Your task to perform on an android device: Do I have any events tomorrow? Image 0: 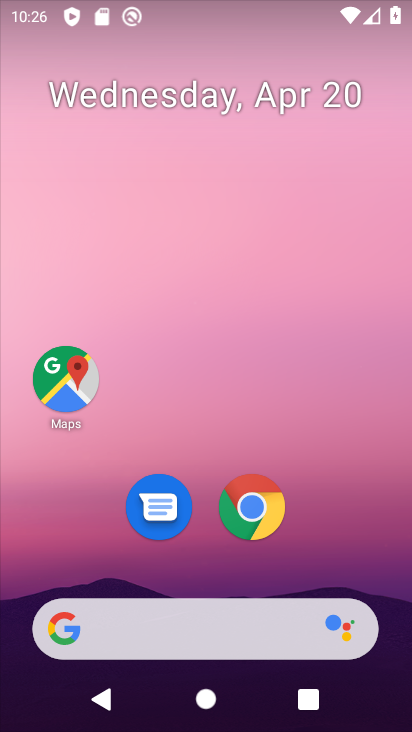
Step 0: drag from (333, 560) to (265, 173)
Your task to perform on an android device: Do I have any events tomorrow? Image 1: 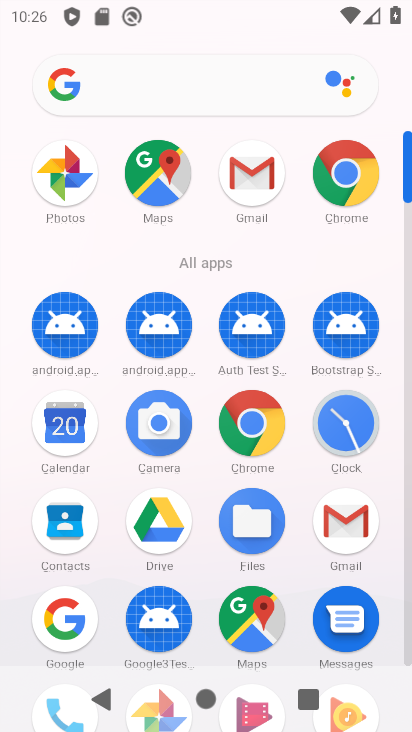
Step 1: click (69, 457)
Your task to perform on an android device: Do I have any events tomorrow? Image 2: 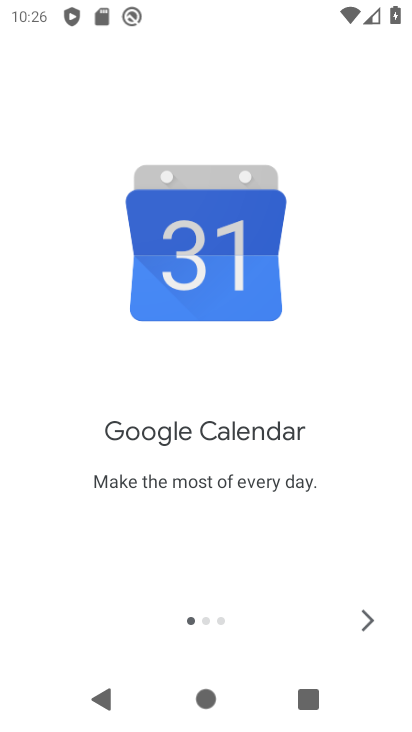
Step 2: click (370, 619)
Your task to perform on an android device: Do I have any events tomorrow? Image 3: 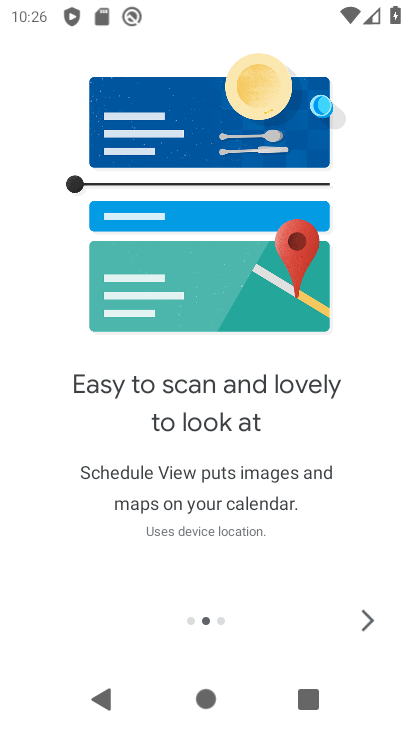
Step 3: click (370, 619)
Your task to perform on an android device: Do I have any events tomorrow? Image 4: 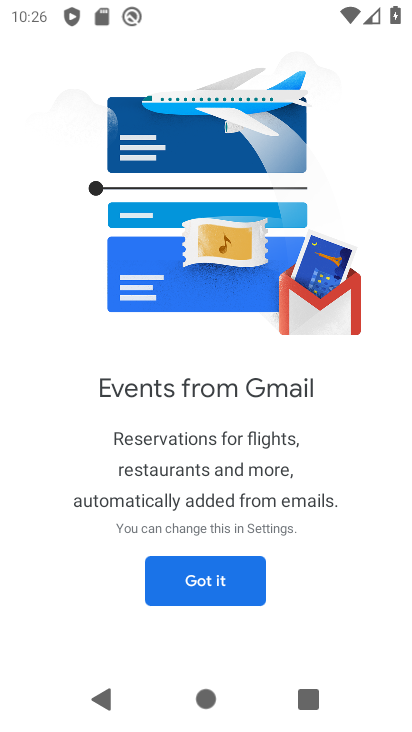
Step 4: click (146, 594)
Your task to perform on an android device: Do I have any events tomorrow? Image 5: 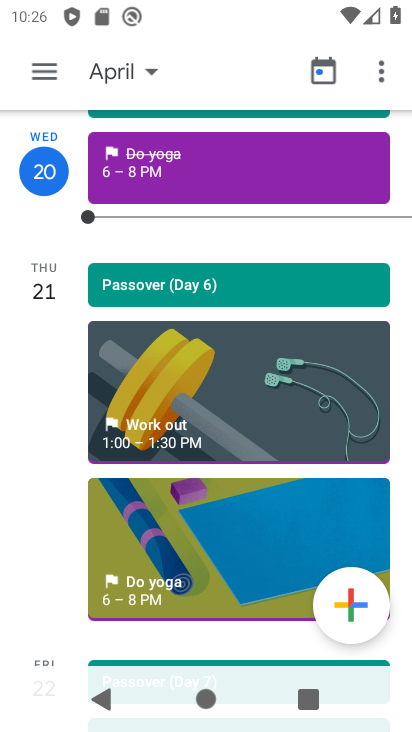
Step 5: click (115, 78)
Your task to perform on an android device: Do I have any events tomorrow? Image 6: 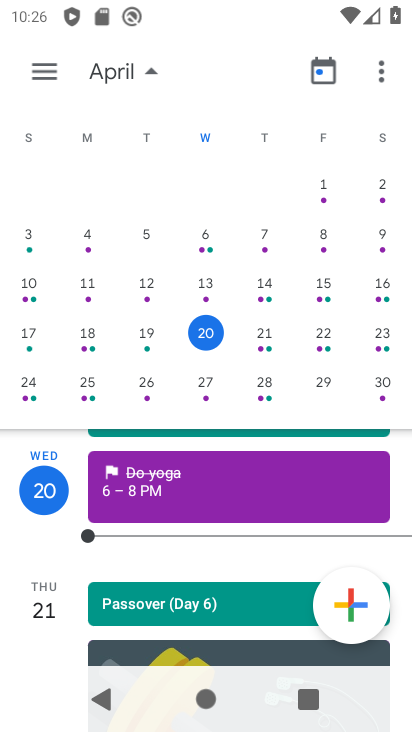
Step 6: click (315, 332)
Your task to perform on an android device: Do I have any events tomorrow? Image 7: 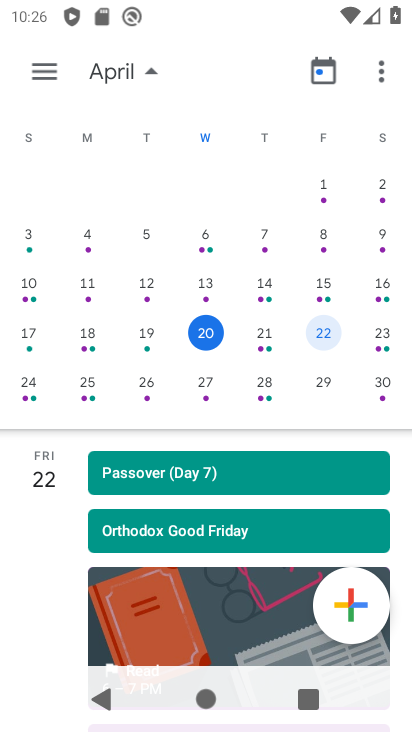
Step 7: click (322, 335)
Your task to perform on an android device: Do I have any events tomorrow? Image 8: 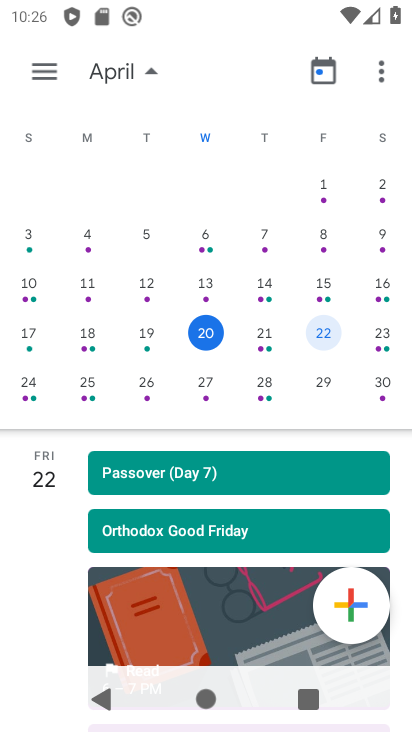
Step 8: task complete